Your task to perform on an android device: Add logitech g933 to the cart on target, then select checkout. Image 0: 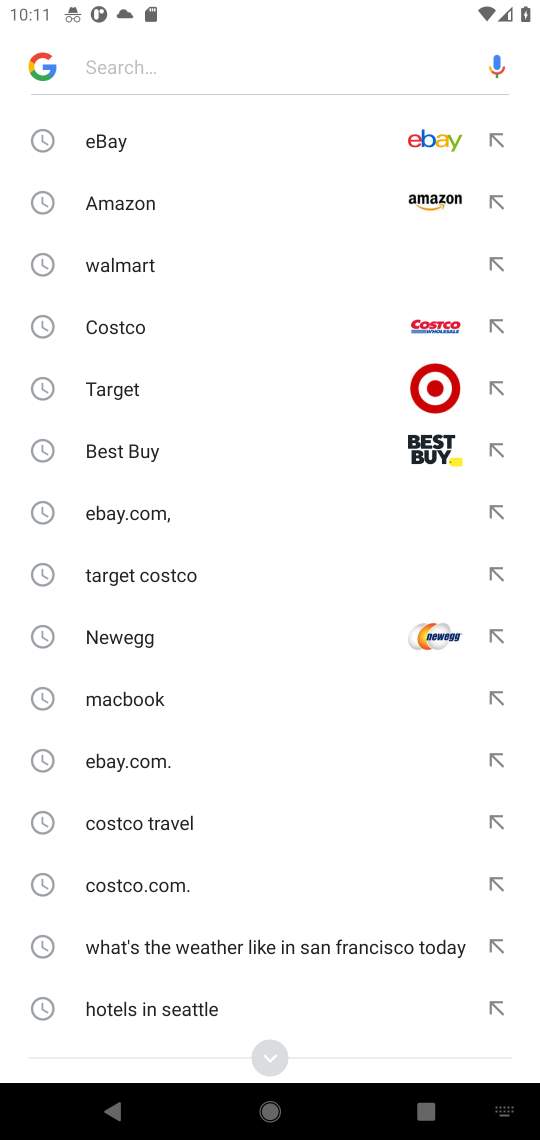
Step 0: click (81, 70)
Your task to perform on an android device: Add logitech g933 to the cart on target, then select checkout. Image 1: 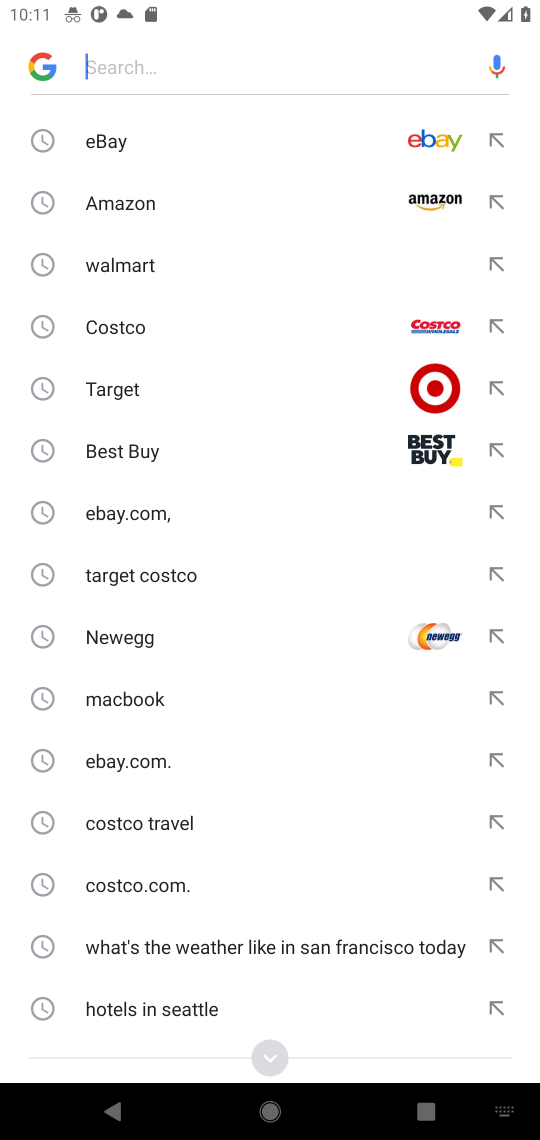
Step 1: type "target.com"
Your task to perform on an android device: Add logitech g933 to the cart on target, then select checkout. Image 2: 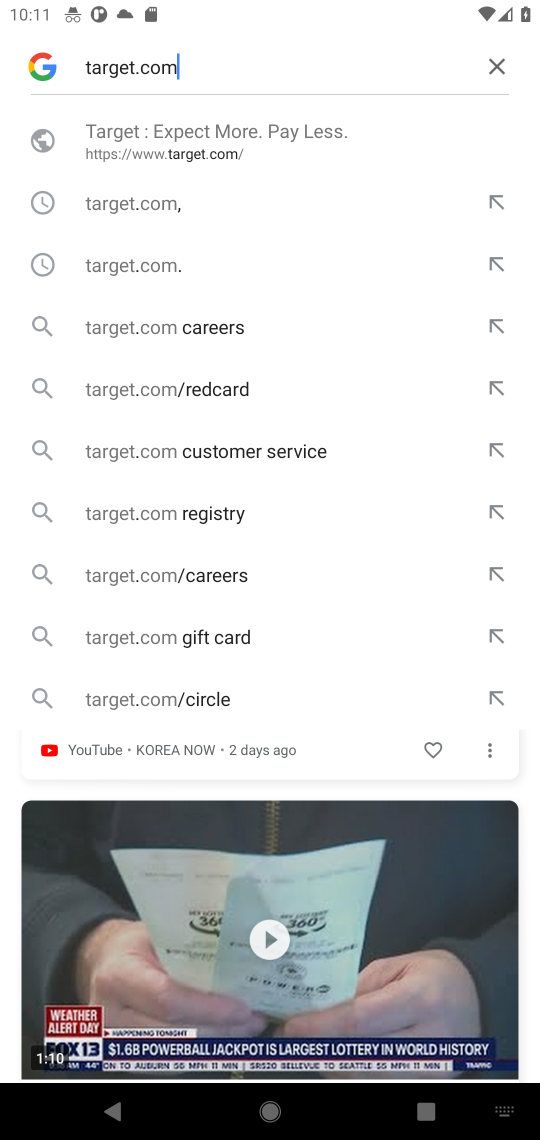
Step 2: click (139, 151)
Your task to perform on an android device: Add logitech g933 to the cart on target, then select checkout. Image 3: 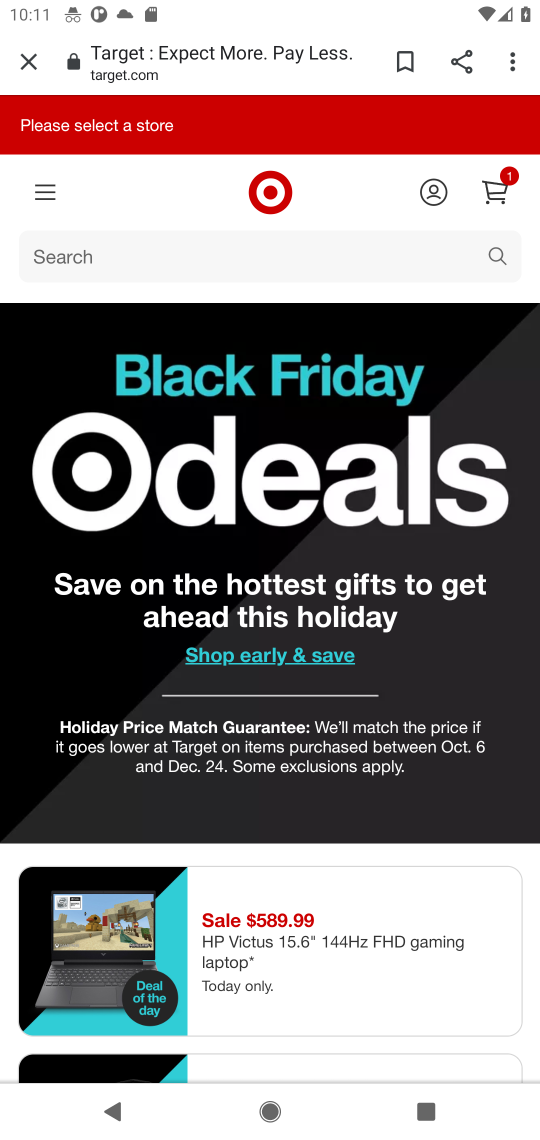
Step 3: click (495, 257)
Your task to perform on an android device: Add logitech g933 to the cart on target, then select checkout. Image 4: 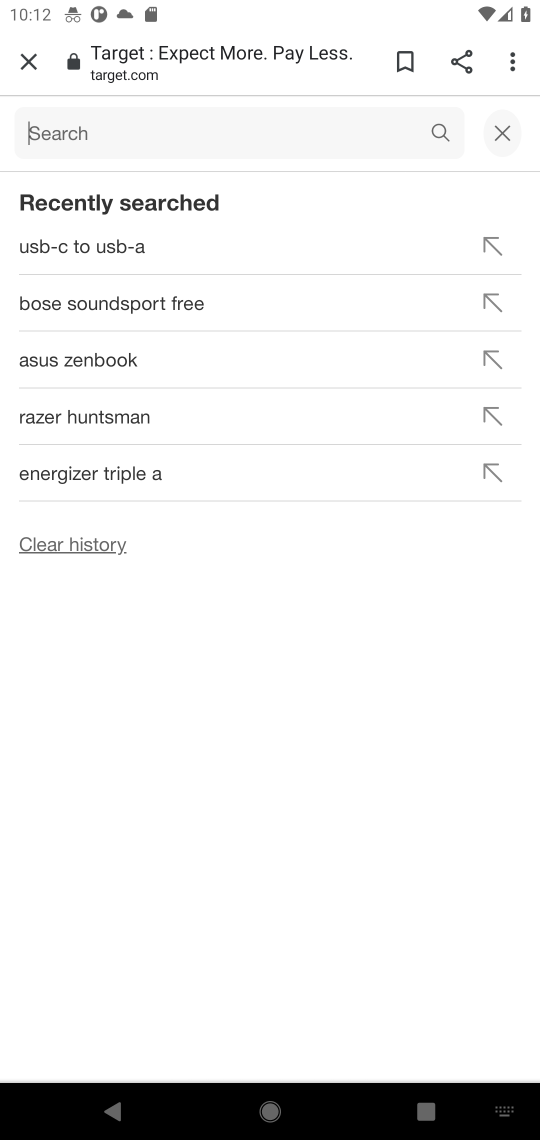
Step 4: type "logitech g933 "
Your task to perform on an android device: Add logitech g933 to the cart on target, then select checkout. Image 5: 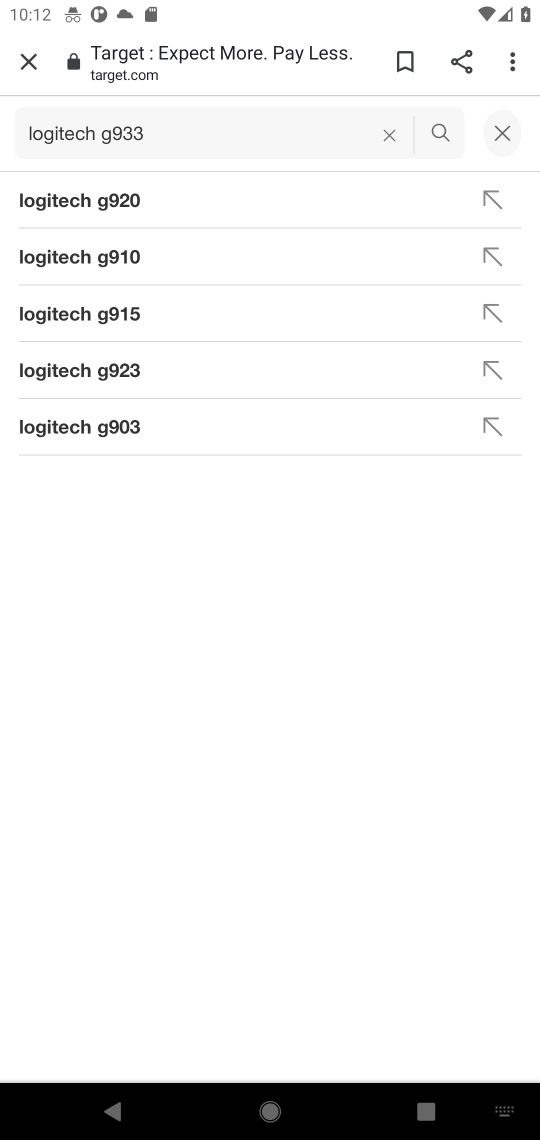
Step 5: click (442, 134)
Your task to perform on an android device: Add logitech g933 to the cart on target, then select checkout. Image 6: 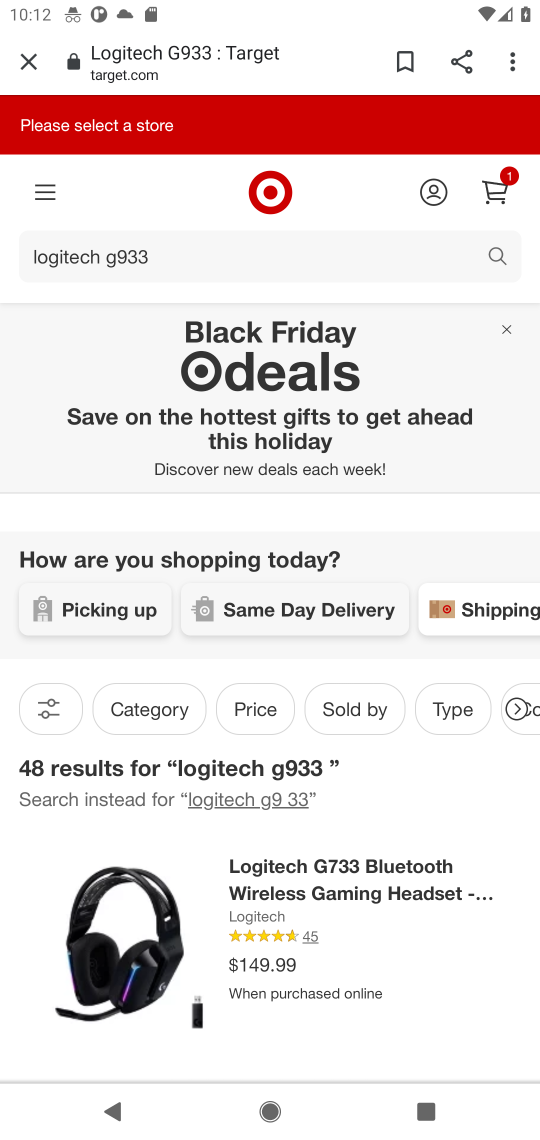
Step 6: task complete